Your task to perform on an android device: turn off priority inbox in the gmail app Image 0: 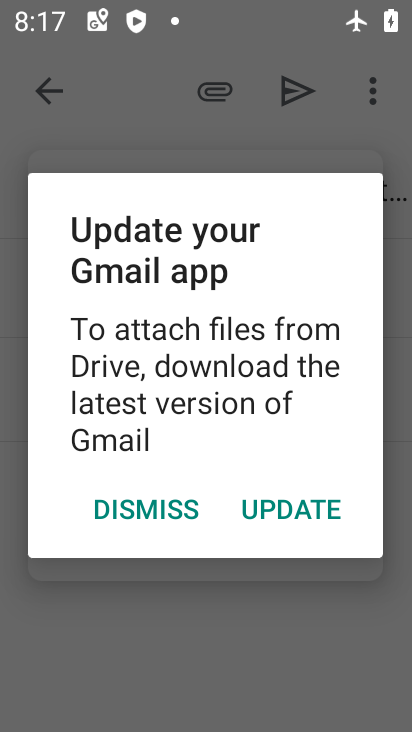
Step 0: press home button
Your task to perform on an android device: turn off priority inbox in the gmail app Image 1: 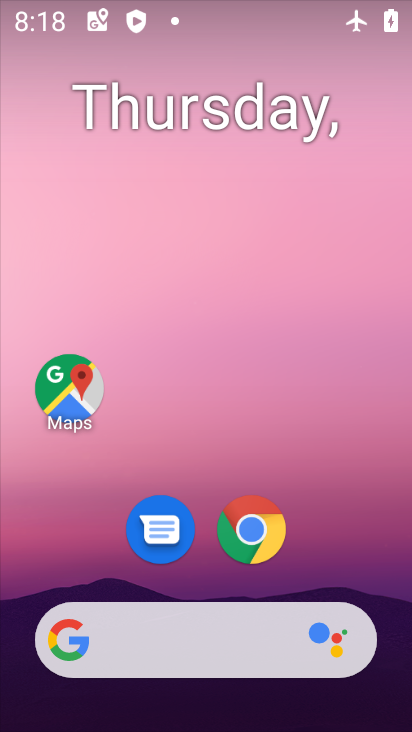
Step 1: drag from (171, 642) to (302, 69)
Your task to perform on an android device: turn off priority inbox in the gmail app Image 2: 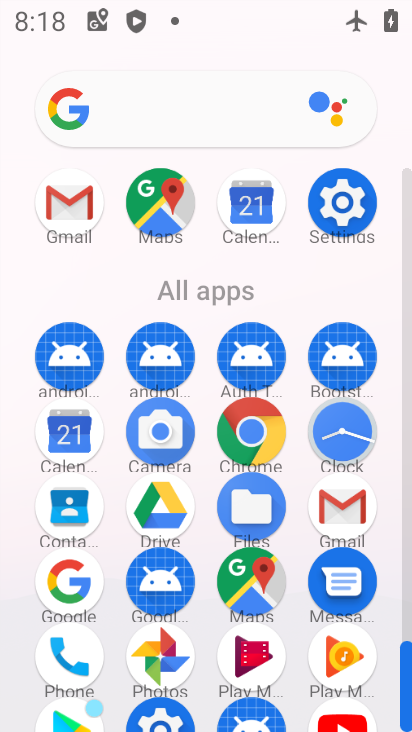
Step 2: click (79, 215)
Your task to perform on an android device: turn off priority inbox in the gmail app Image 3: 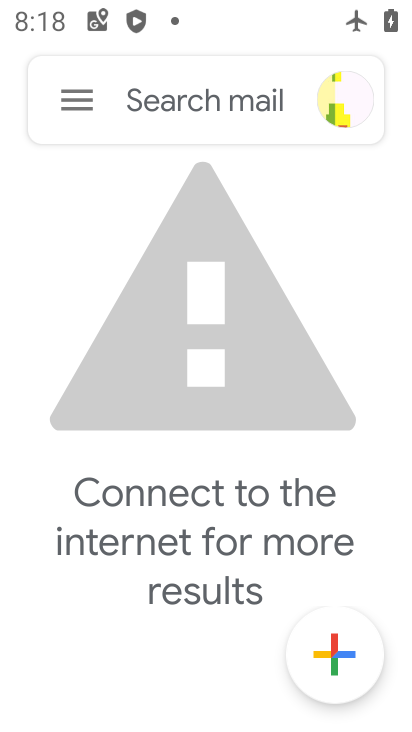
Step 3: click (81, 102)
Your task to perform on an android device: turn off priority inbox in the gmail app Image 4: 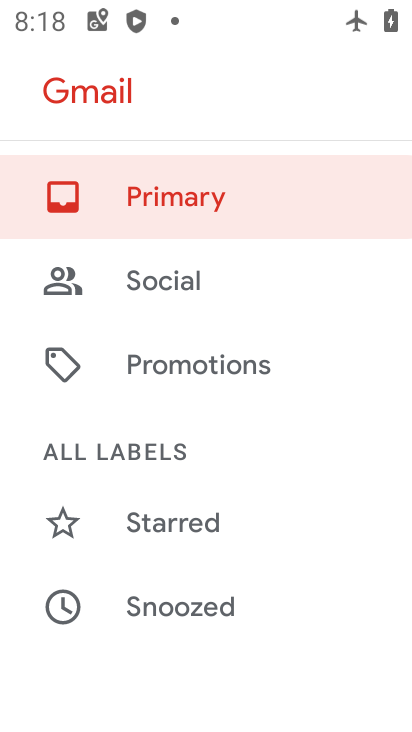
Step 4: drag from (256, 572) to (217, 159)
Your task to perform on an android device: turn off priority inbox in the gmail app Image 5: 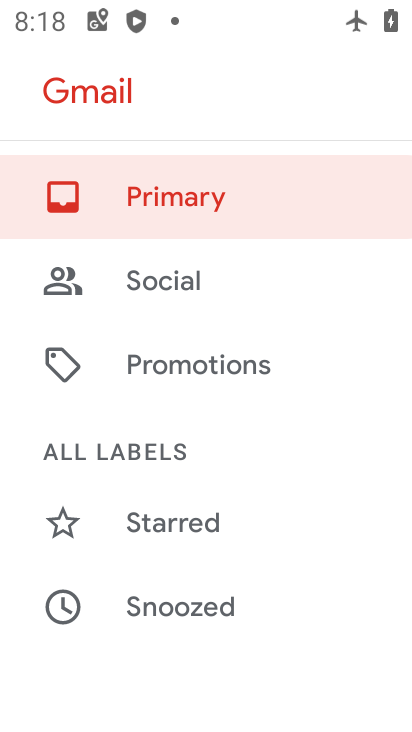
Step 5: drag from (211, 620) to (302, 34)
Your task to perform on an android device: turn off priority inbox in the gmail app Image 6: 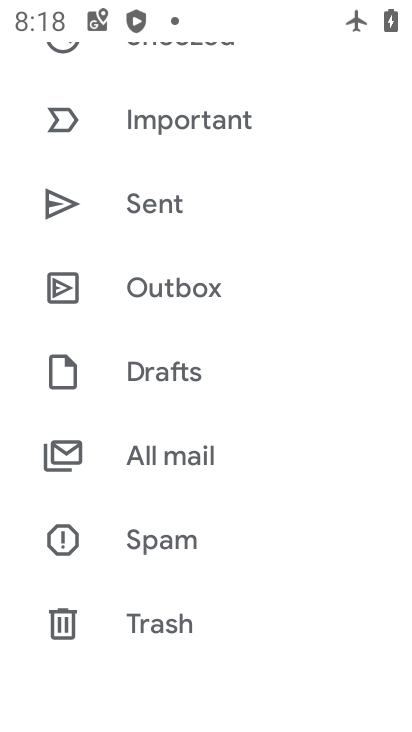
Step 6: drag from (229, 614) to (304, 15)
Your task to perform on an android device: turn off priority inbox in the gmail app Image 7: 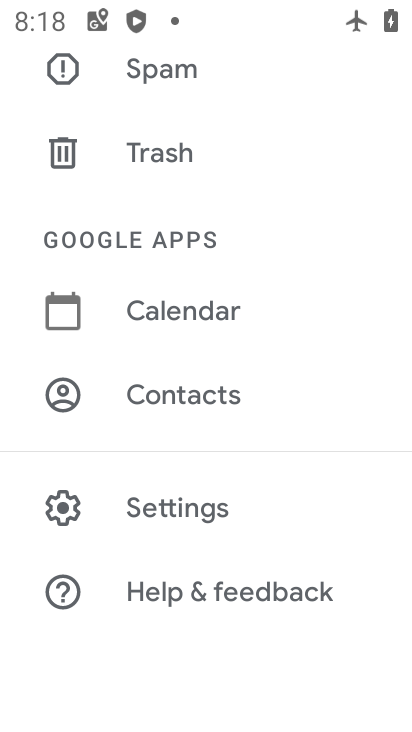
Step 7: click (178, 511)
Your task to perform on an android device: turn off priority inbox in the gmail app Image 8: 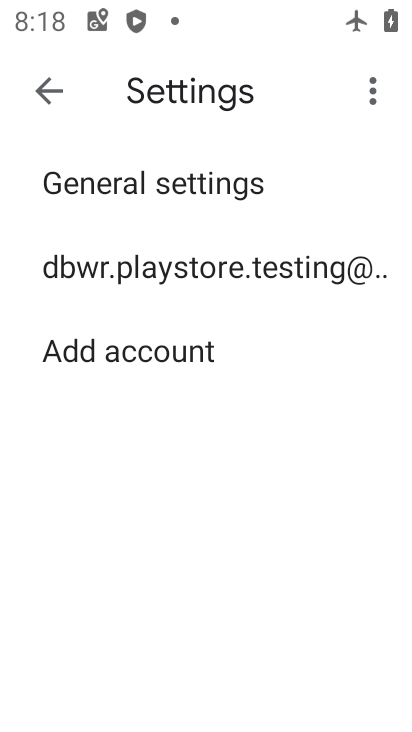
Step 8: click (206, 264)
Your task to perform on an android device: turn off priority inbox in the gmail app Image 9: 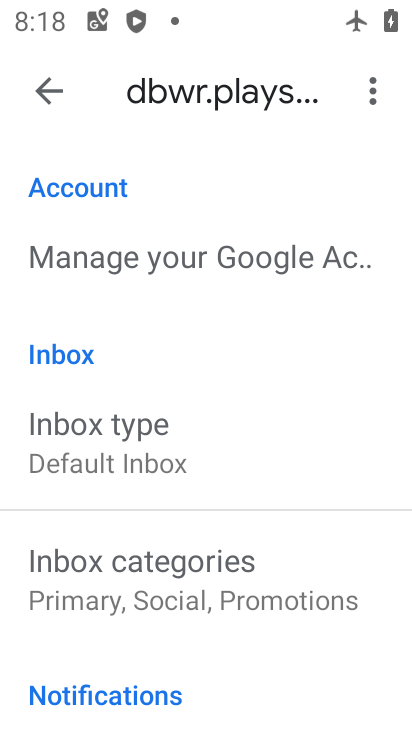
Step 9: click (105, 458)
Your task to perform on an android device: turn off priority inbox in the gmail app Image 10: 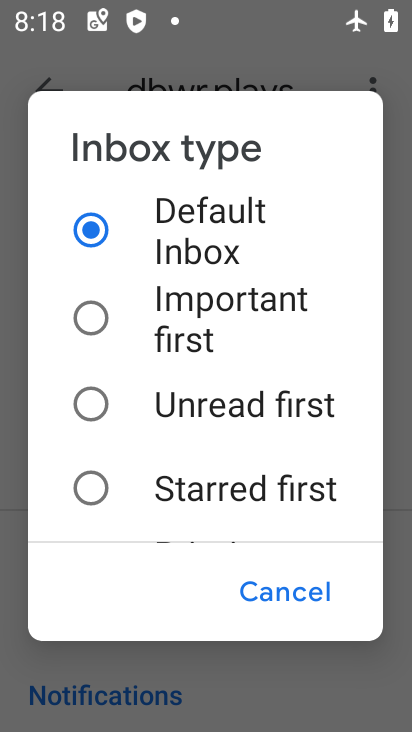
Step 10: task complete